Your task to perform on an android device: toggle translation in the chrome app Image 0: 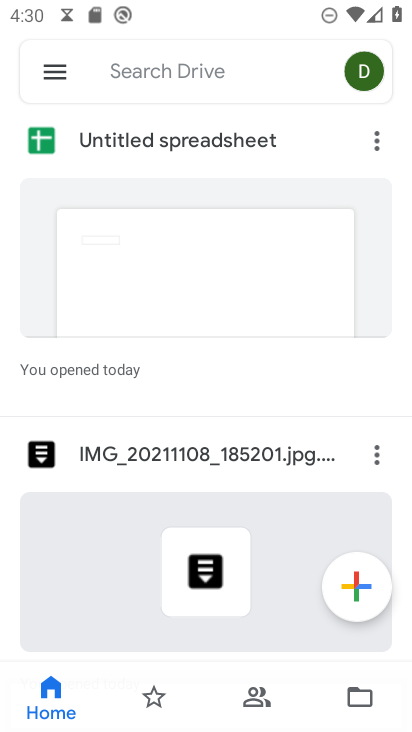
Step 0: press home button
Your task to perform on an android device: toggle translation in the chrome app Image 1: 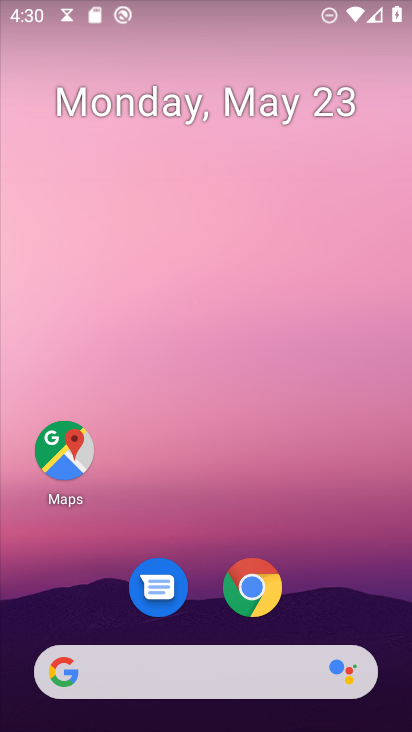
Step 1: click (254, 582)
Your task to perform on an android device: toggle translation in the chrome app Image 2: 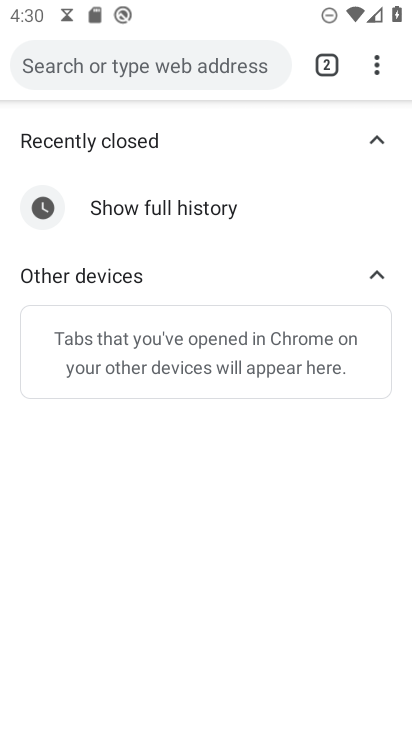
Step 2: click (370, 60)
Your task to perform on an android device: toggle translation in the chrome app Image 3: 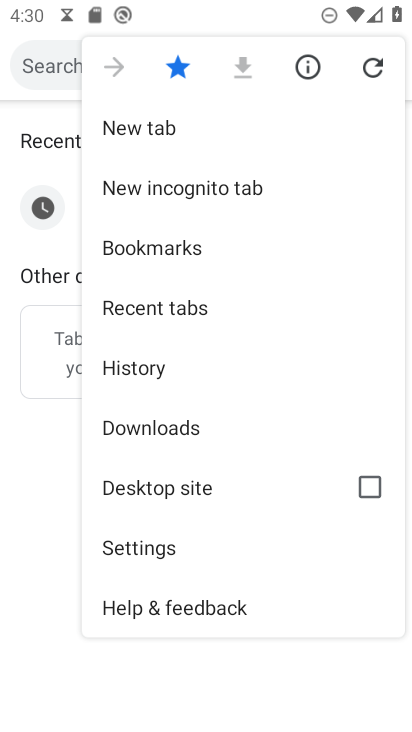
Step 3: click (177, 556)
Your task to perform on an android device: toggle translation in the chrome app Image 4: 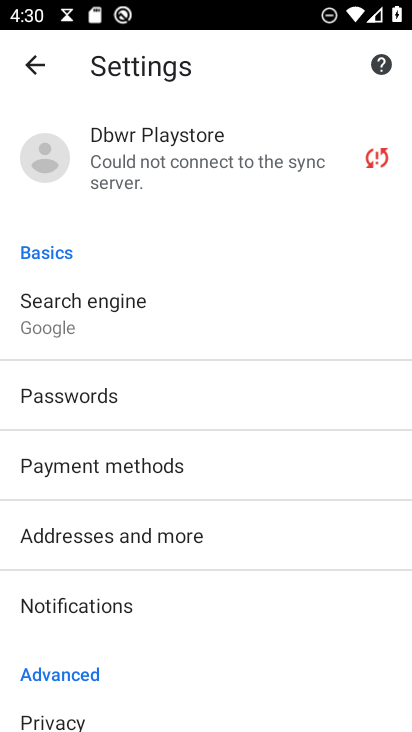
Step 4: drag from (120, 588) to (144, 441)
Your task to perform on an android device: toggle translation in the chrome app Image 5: 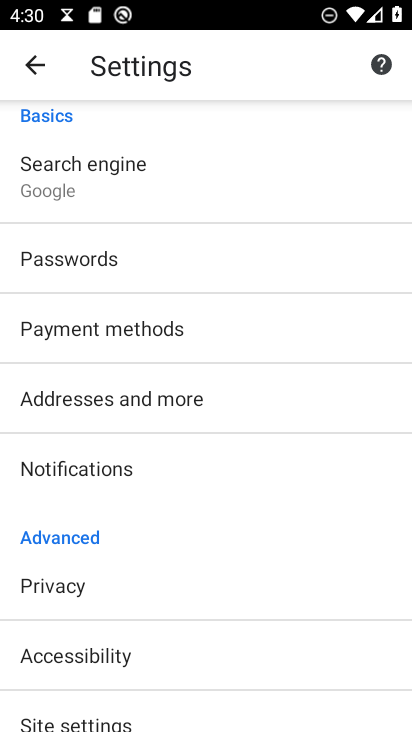
Step 5: drag from (128, 596) to (151, 397)
Your task to perform on an android device: toggle translation in the chrome app Image 6: 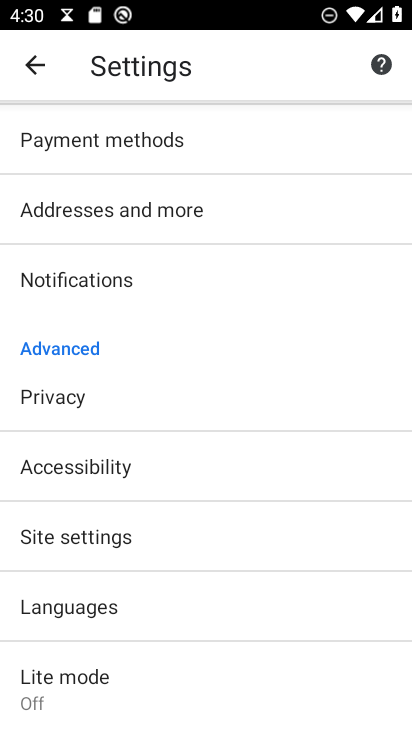
Step 6: drag from (98, 605) to (98, 482)
Your task to perform on an android device: toggle translation in the chrome app Image 7: 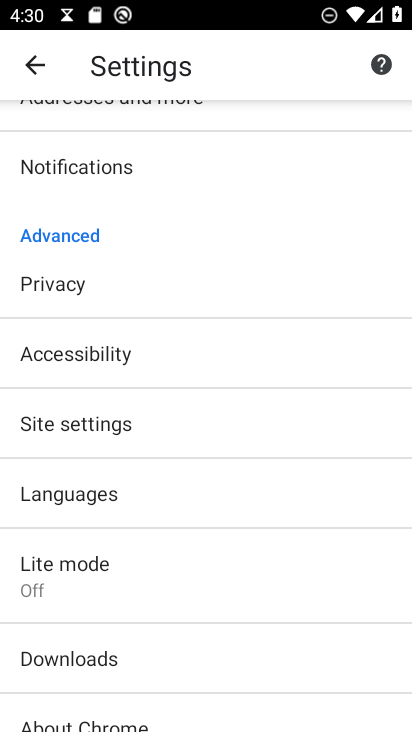
Step 7: click (85, 488)
Your task to perform on an android device: toggle translation in the chrome app Image 8: 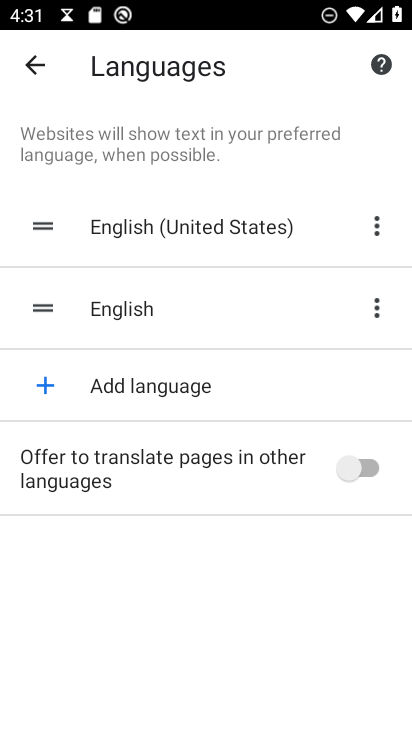
Step 8: click (382, 461)
Your task to perform on an android device: toggle translation in the chrome app Image 9: 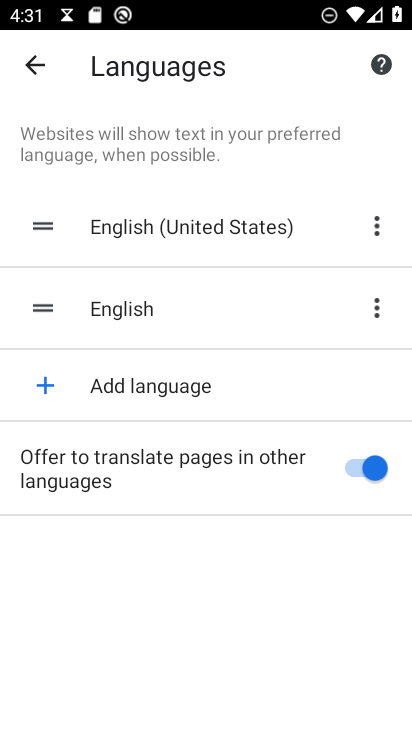
Step 9: task complete